Your task to perform on an android device: Do I have any events today? Image 0: 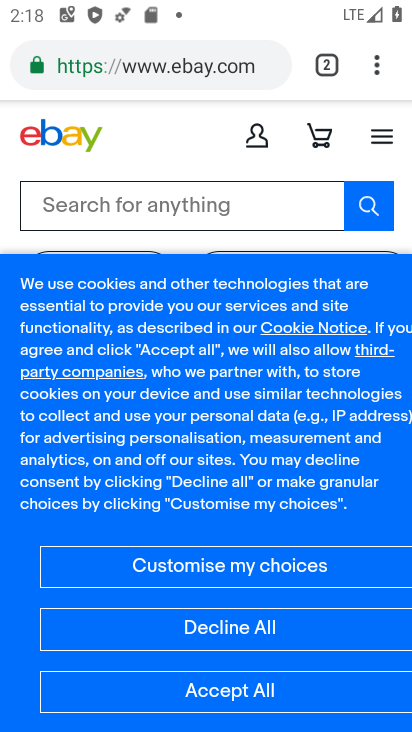
Step 0: press home button
Your task to perform on an android device: Do I have any events today? Image 1: 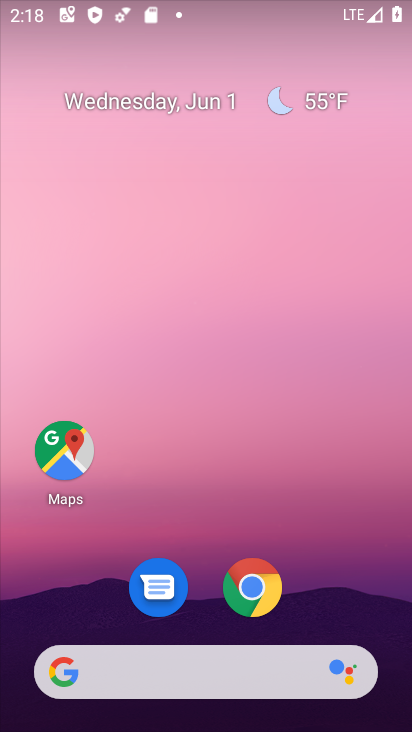
Step 1: drag from (202, 668) to (175, 145)
Your task to perform on an android device: Do I have any events today? Image 2: 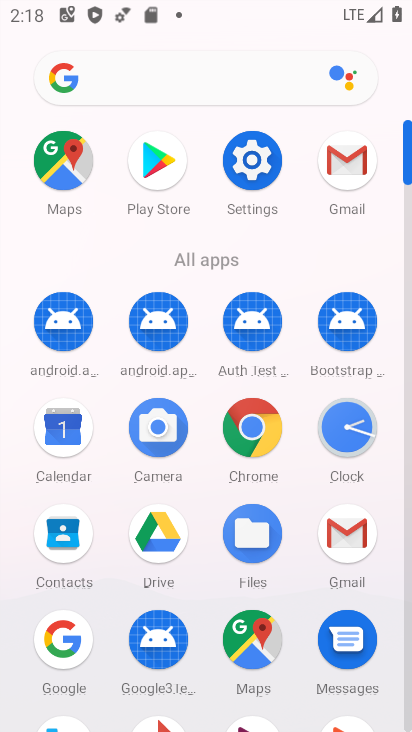
Step 2: click (53, 434)
Your task to perform on an android device: Do I have any events today? Image 3: 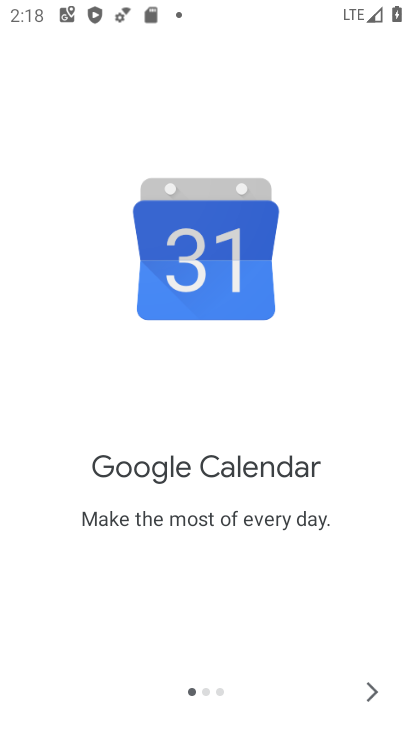
Step 3: click (368, 691)
Your task to perform on an android device: Do I have any events today? Image 4: 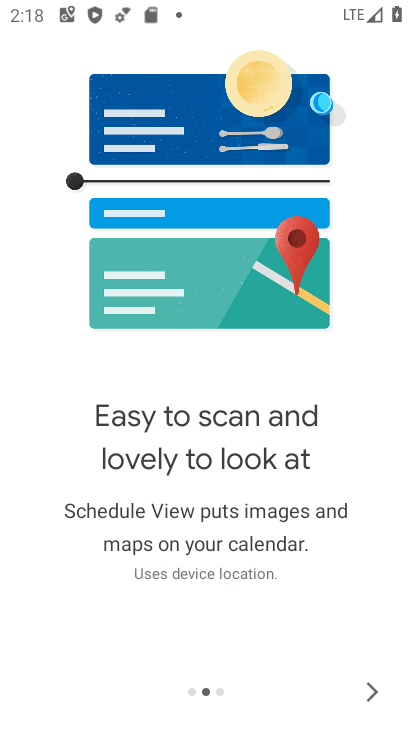
Step 4: click (368, 691)
Your task to perform on an android device: Do I have any events today? Image 5: 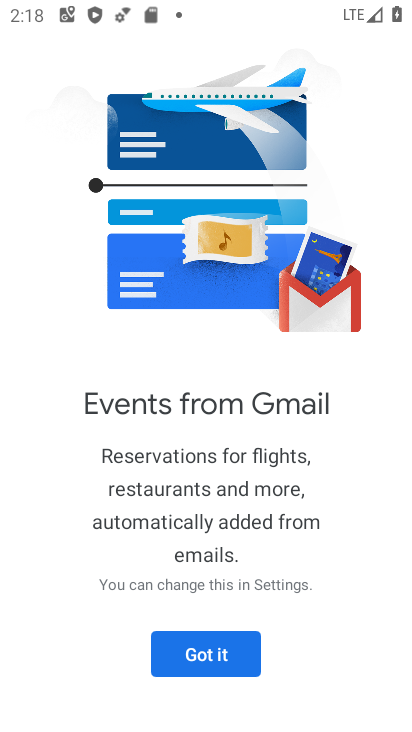
Step 5: click (234, 657)
Your task to perform on an android device: Do I have any events today? Image 6: 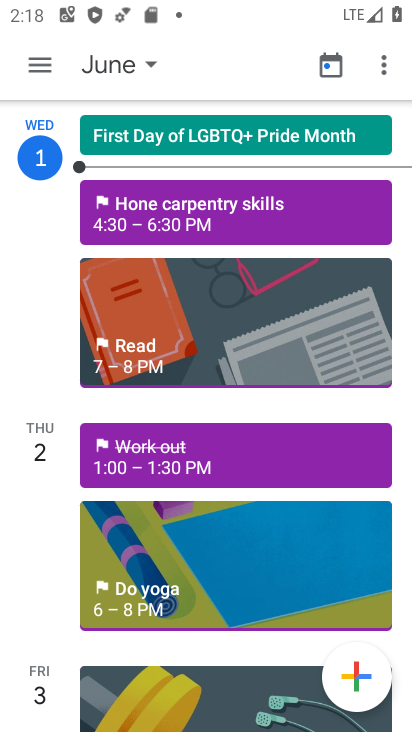
Step 6: task complete